Your task to perform on an android device: toggle show notifications on the lock screen Image 0: 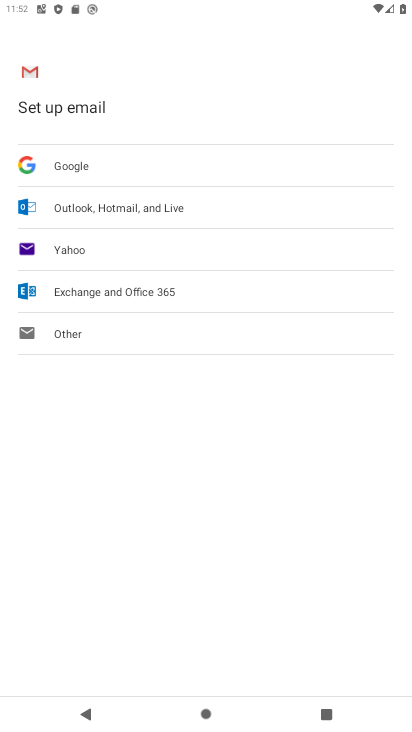
Step 0: press home button
Your task to perform on an android device: toggle show notifications on the lock screen Image 1: 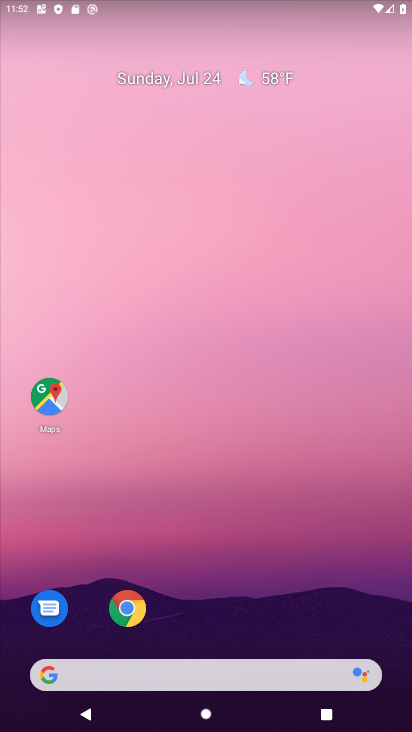
Step 1: drag from (241, 670) to (242, 209)
Your task to perform on an android device: toggle show notifications on the lock screen Image 2: 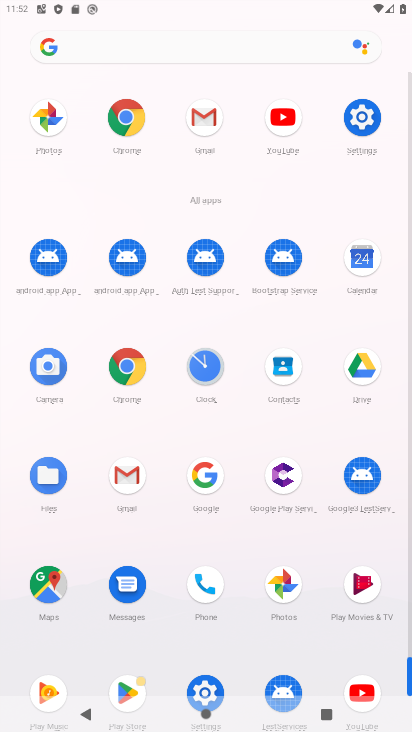
Step 2: click (203, 677)
Your task to perform on an android device: toggle show notifications on the lock screen Image 3: 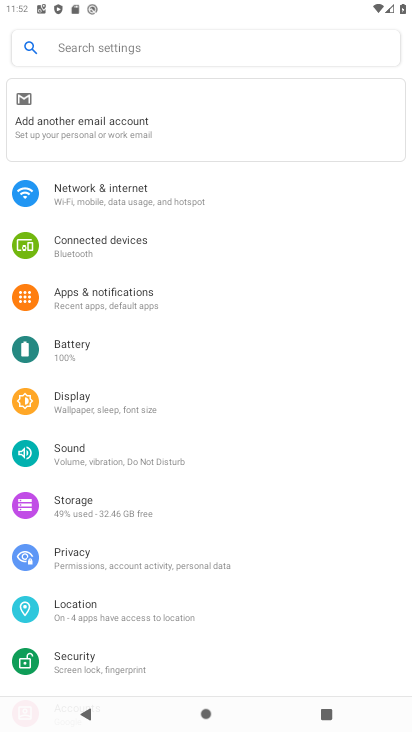
Step 3: click (158, 288)
Your task to perform on an android device: toggle show notifications on the lock screen Image 4: 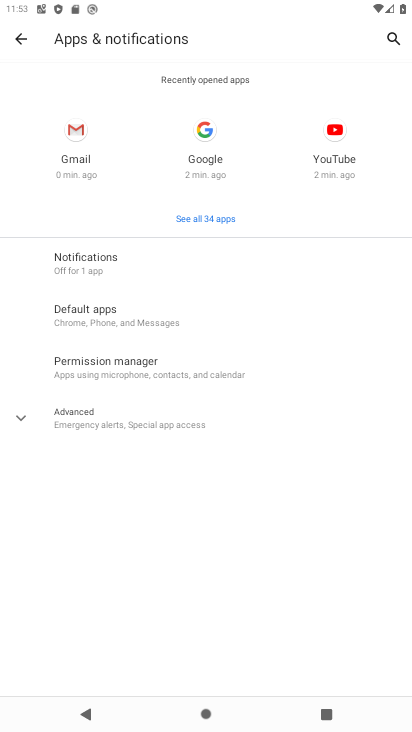
Step 4: click (115, 258)
Your task to perform on an android device: toggle show notifications on the lock screen Image 5: 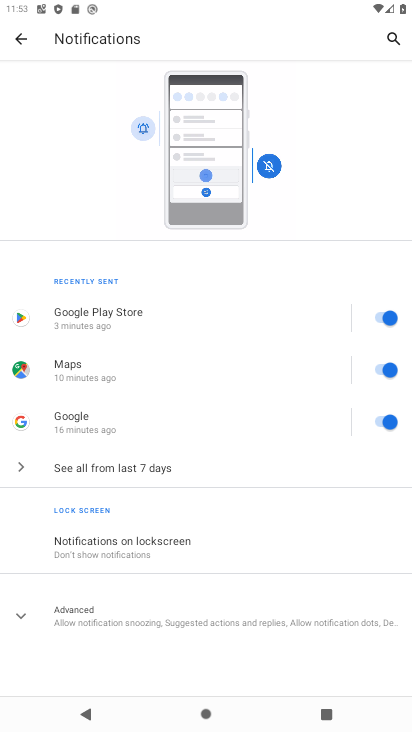
Step 5: click (184, 540)
Your task to perform on an android device: toggle show notifications on the lock screen Image 6: 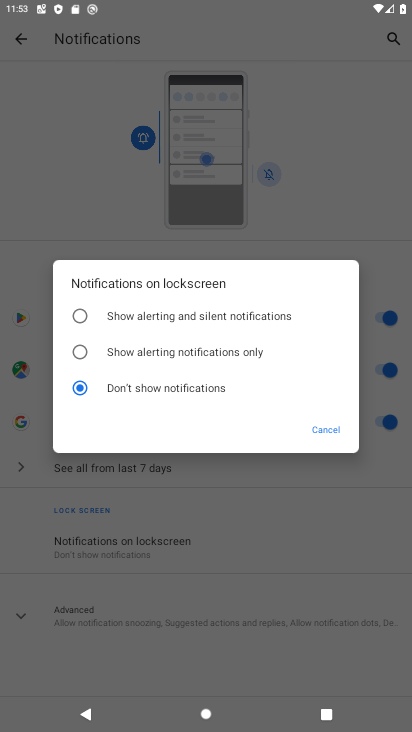
Step 6: click (88, 319)
Your task to perform on an android device: toggle show notifications on the lock screen Image 7: 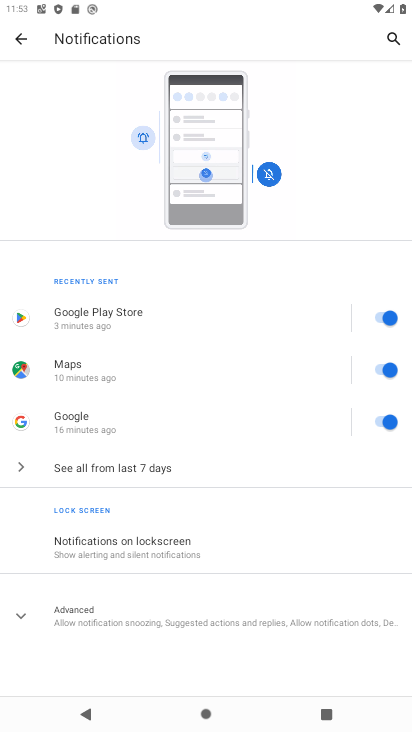
Step 7: task complete